Your task to perform on an android device: Open notification settings Image 0: 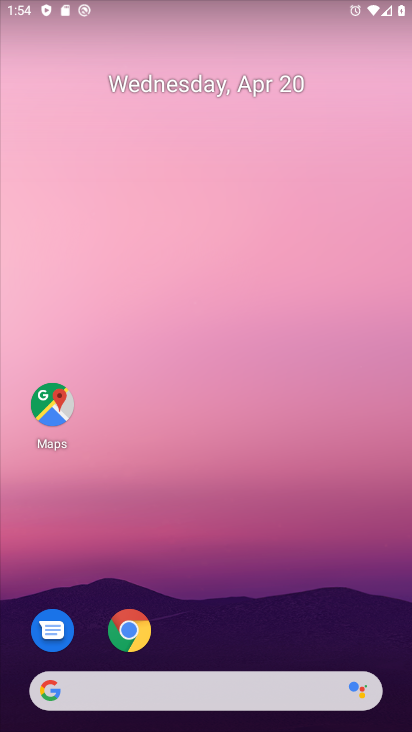
Step 0: drag from (190, 583) to (122, 229)
Your task to perform on an android device: Open notification settings Image 1: 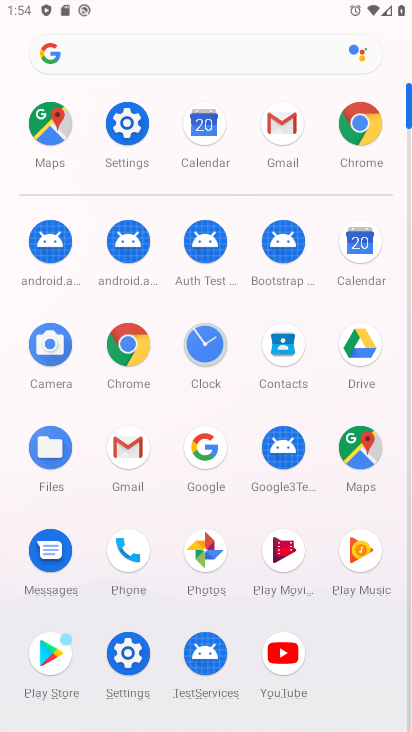
Step 1: click (129, 129)
Your task to perform on an android device: Open notification settings Image 2: 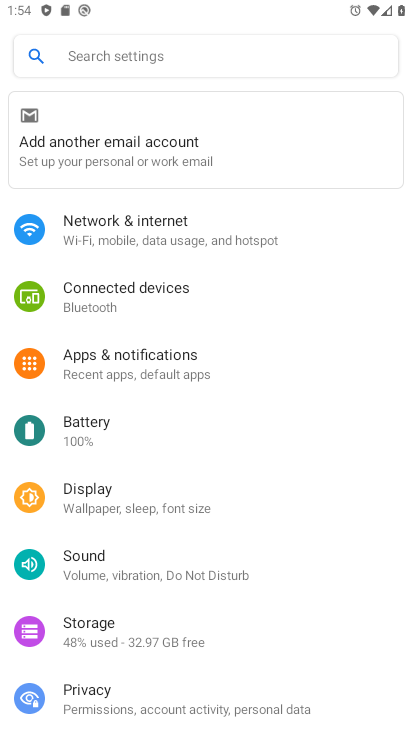
Step 2: click (167, 370)
Your task to perform on an android device: Open notification settings Image 3: 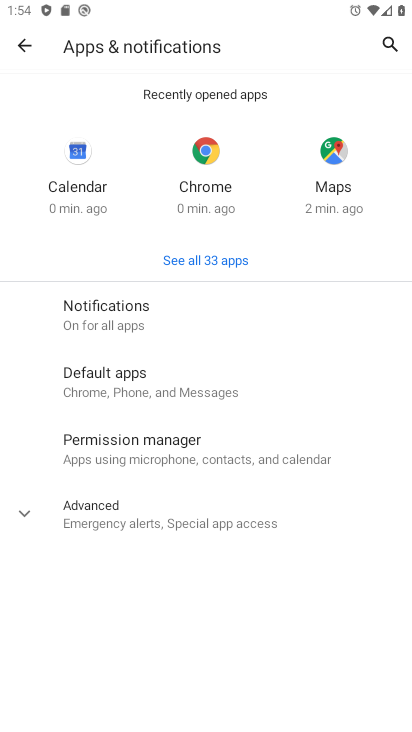
Step 3: click (73, 317)
Your task to perform on an android device: Open notification settings Image 4: 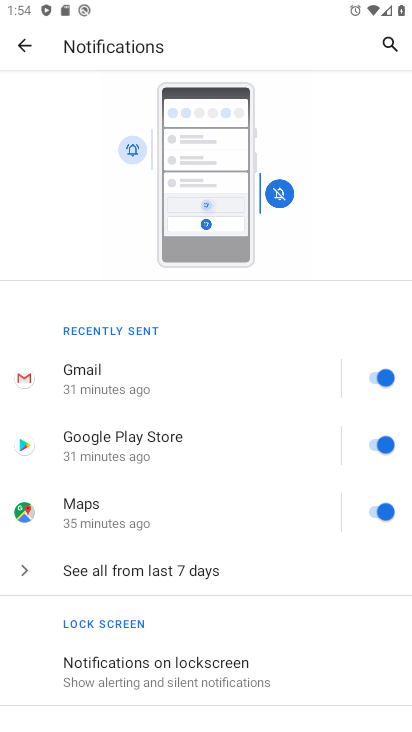
Step 4: task complete